Your task to perform on an android device: See recent photos Image 0: 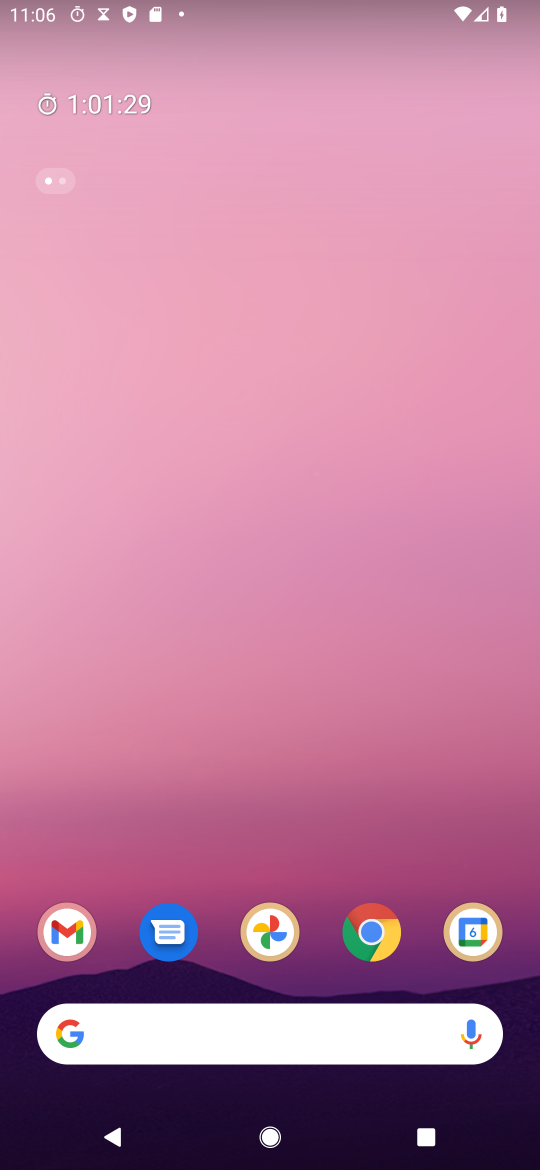
Step 0: click (262, 920)
Your task to perform on an android device: See recent photos Image 1: 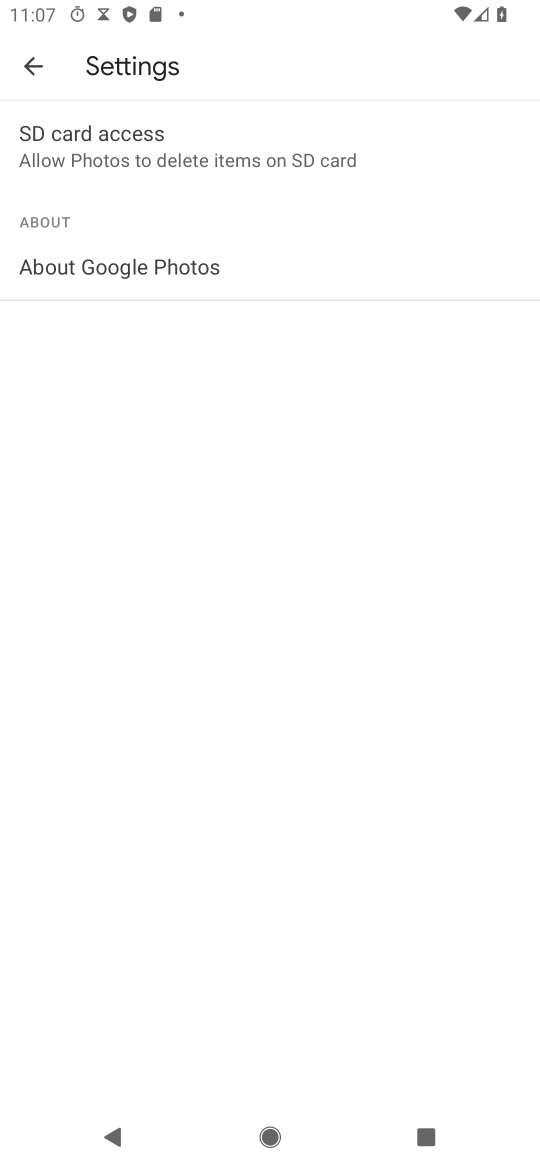
Step 1: click (35, 64)
Your task to perform on an android device: See recent photos Image 2: 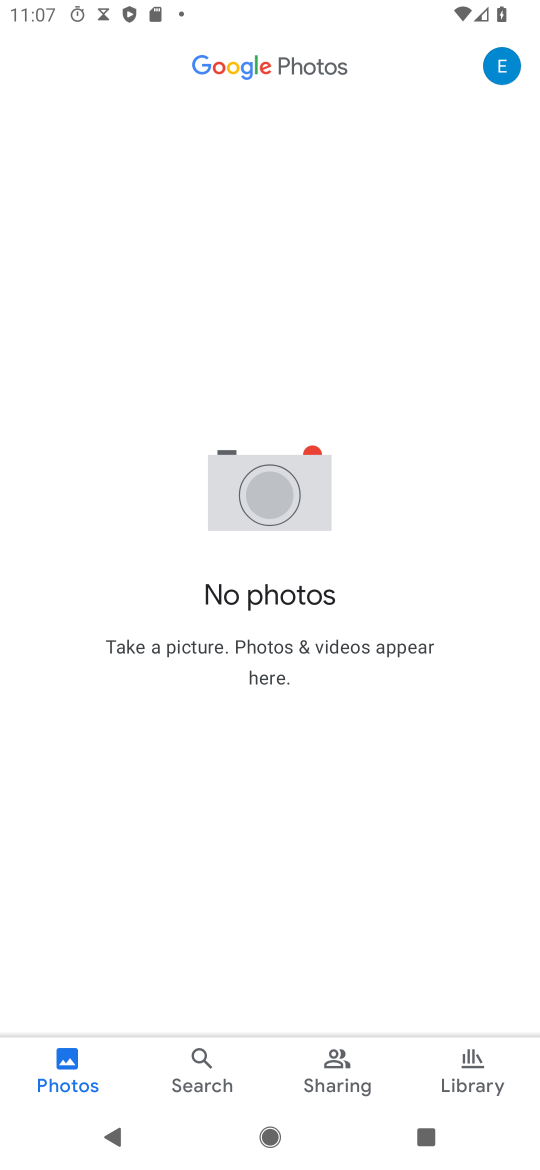
Step 2: task complete